Your task to perform on an android device: Go to Yahoo.com Image 0: 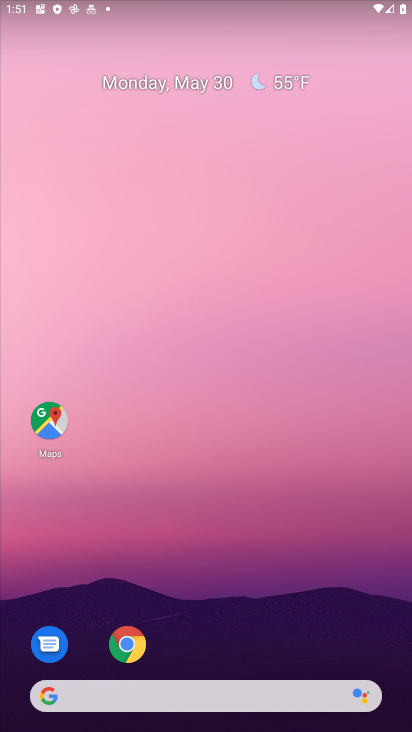
Step 0: click (195, 686)
Your task to perform on an android device: Go to Yahoo.com Image 1: 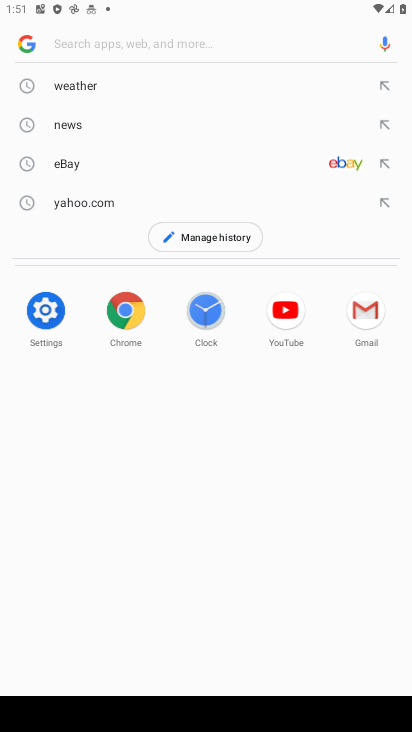
Step 1: click (102, 200)
Your task to perform on an android device: Go to Yahoo.com Image 2: 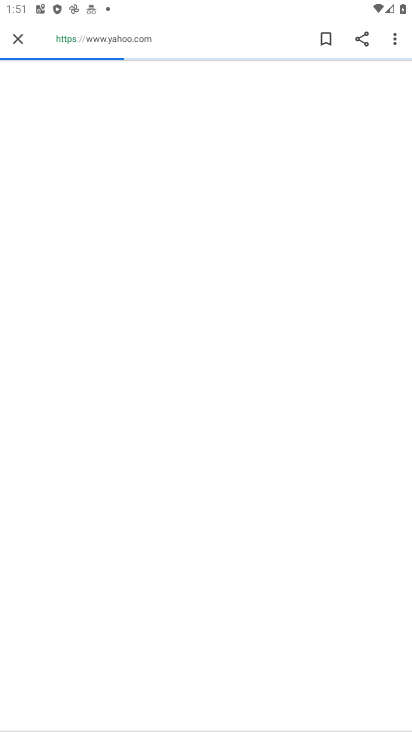
Step 2: task complete